Your task to perform on an android device: check battery use Image 0: 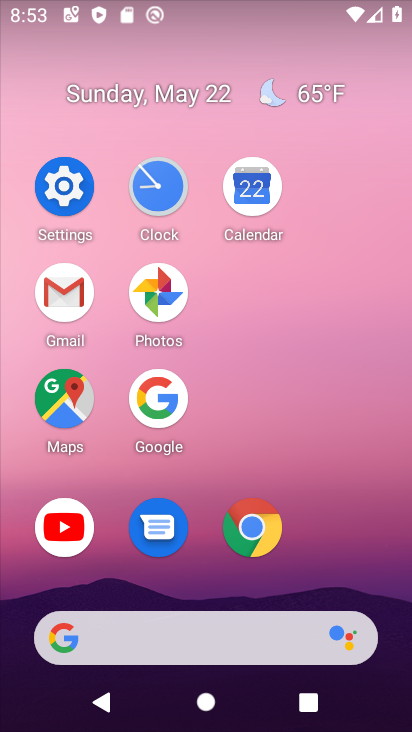
Step 0: click (52, 185)
Your task to perform on an android device: check battery use Image 1: 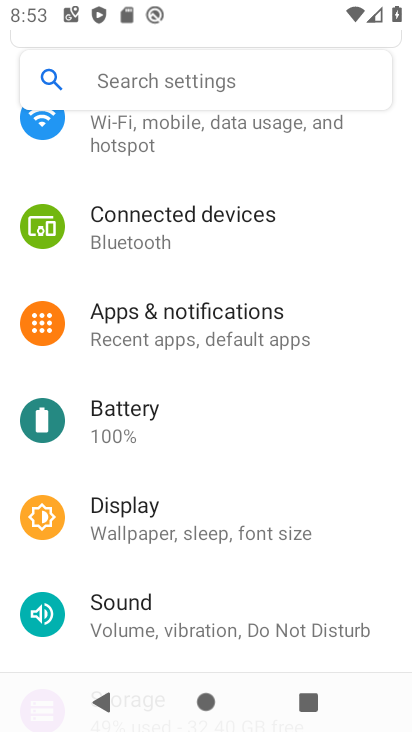
Step 1: click (153, 413)
Your task to perform on an android device: check battery use Image 2: 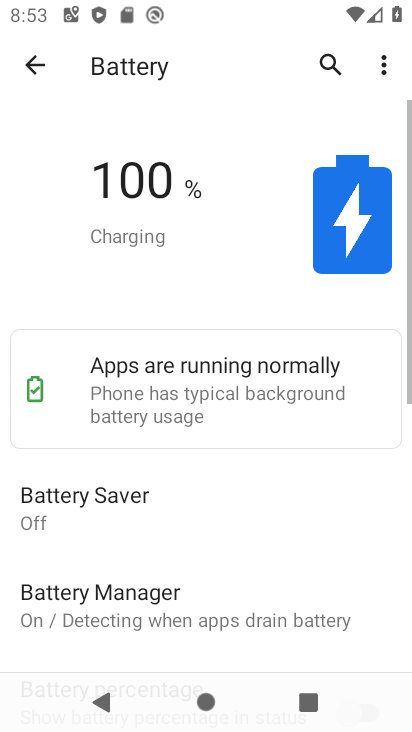
Step 2: click (385, 73)
Your task to perform on an android device: check battery use Image 3: 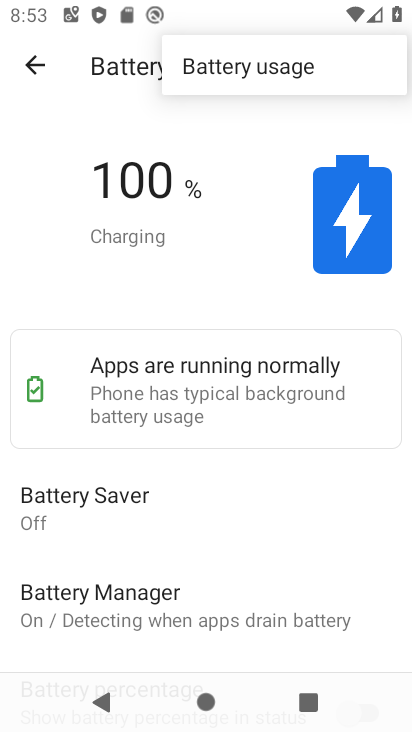
Step 3: click (264, 72)
Your task to perform on an android device: check battery use Image 4: 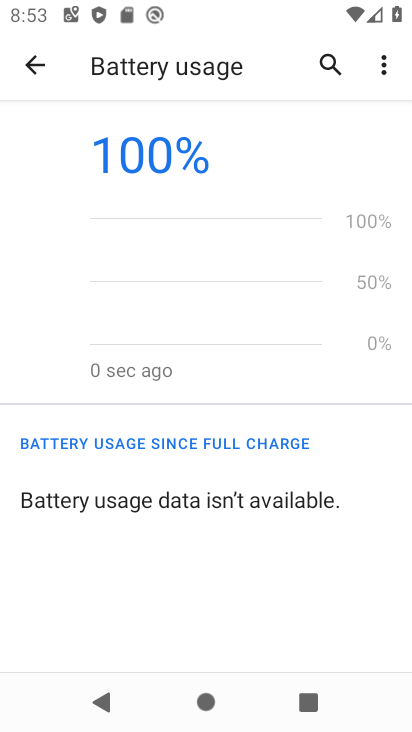
Step 4: task complete